Your task to perform on an android device: View the shopping cart on amazon. Search for "alienware aurora" on amazon, select the first entry, and add it to the cart. Image 0: 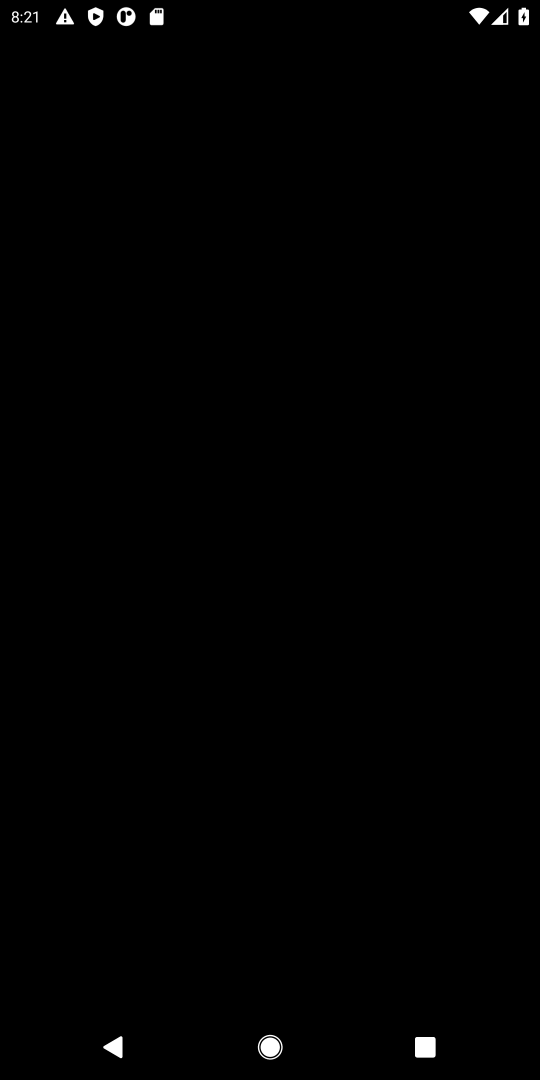
Step 0: press home button
Your task to perform on an android device: View the shopping cart on amazon. Search for "alienware aurora" on amazon, select the first entry, and add it to the cart. Image 1: 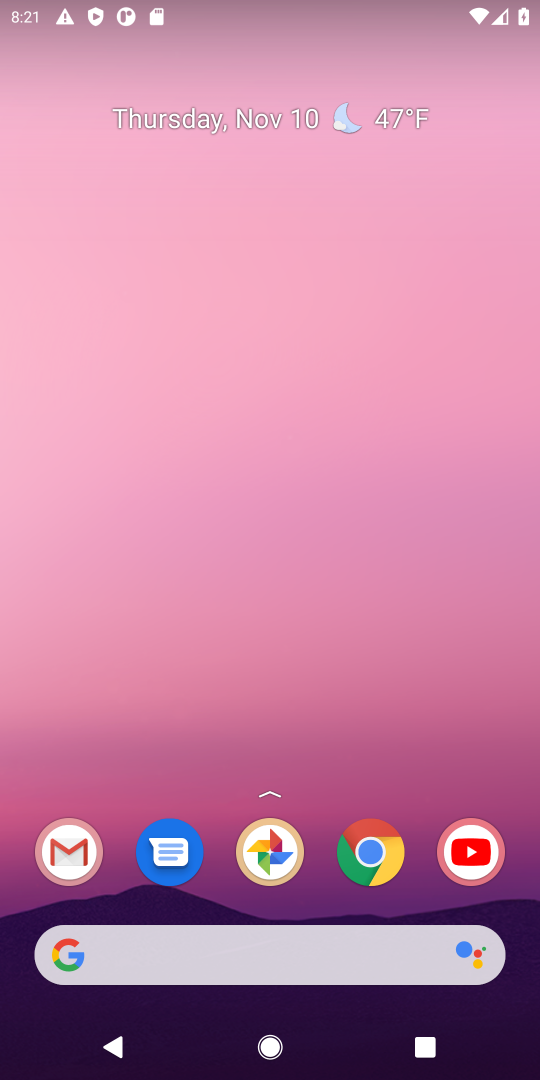
Step 1: click (367, 853)
Your task to perform on an android device: View the shopping cart on amazon. Search for "alienware aurora" on amazon, select the first entry, and add it to the cart. Image 2: 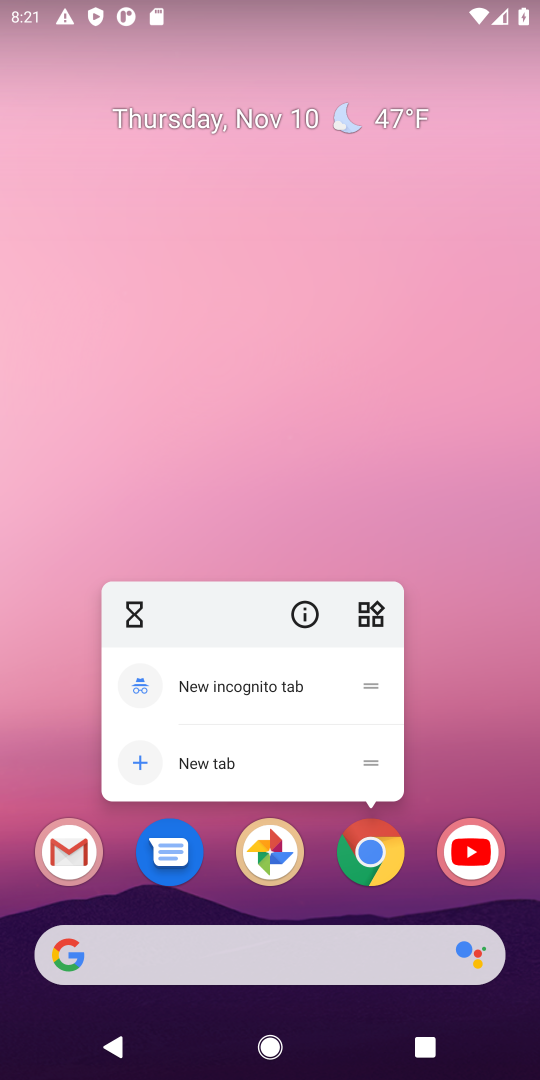
Step 2: click (368, 851)
Your task to perform on an android device: View the shopping cart on amazon. Search for "alienware aurora" on amazon, select the first entry, and add it to the cart. Image 3: 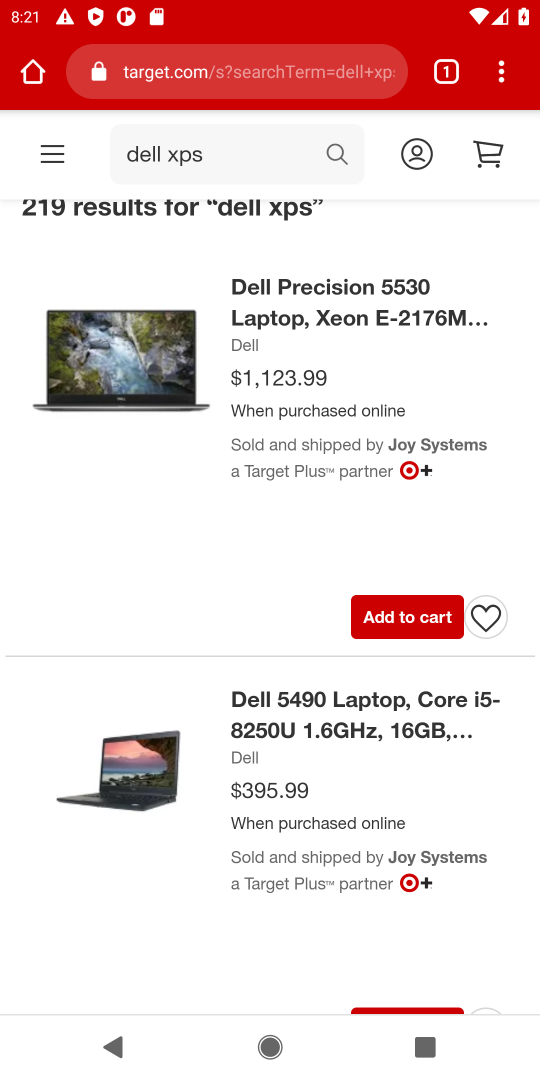
Step 3: click (322, 65)
Your task to perform on an android device: View the shopping cart on amazon. Search for "alienware aurora" on amazon, select the first entry, and add it to the cart. Image 4: 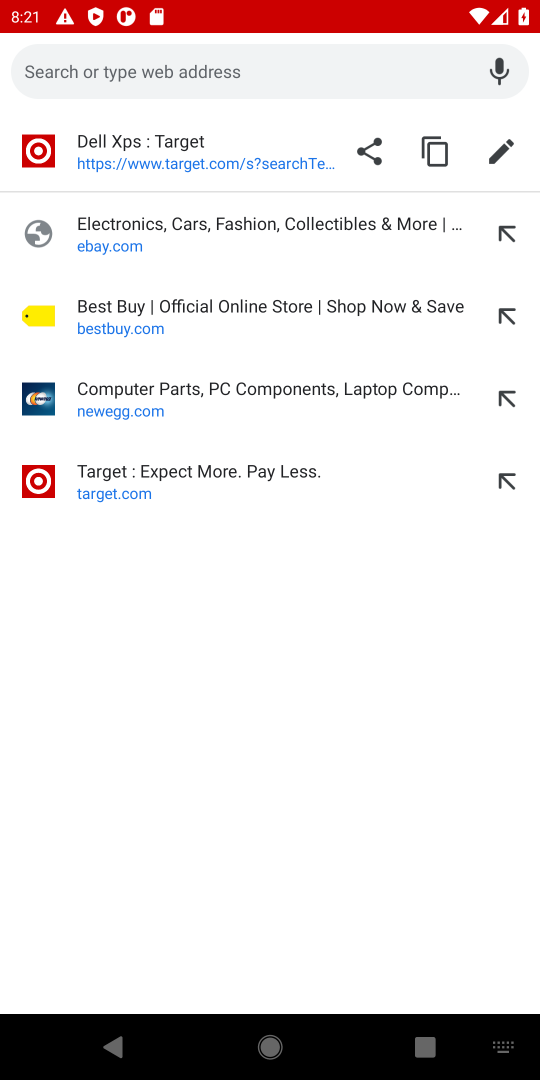
Step 4: type "amazon"
Your task to perform on an android device: View the shopping cart on amazon. Search for "alienware aurora" on amazon, select the first entry, and add it to the cart. Image 5: 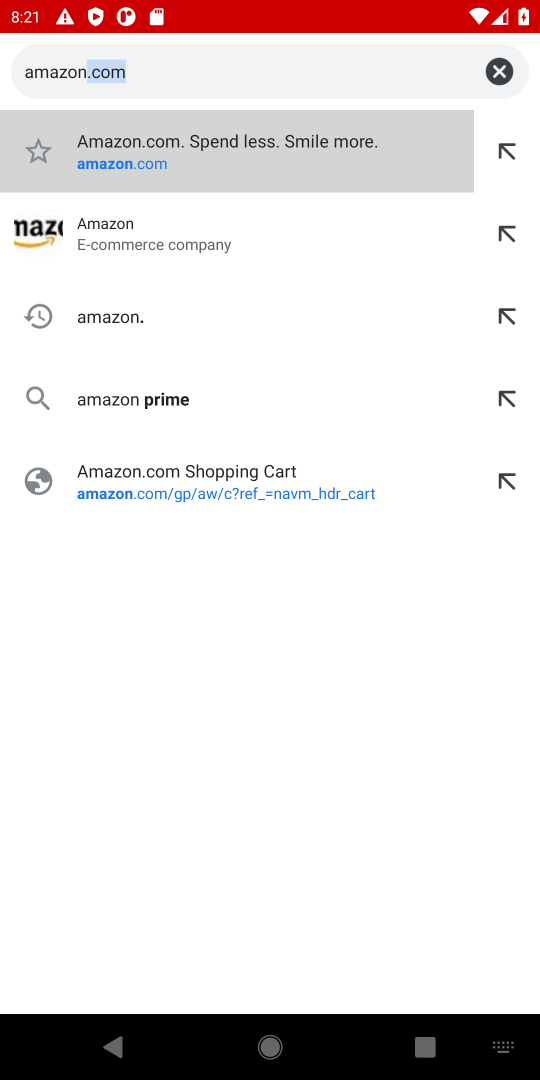
Step 5: press enter
Your task to perform on an android device: View the shopping cart on amazon. Search for "alienware aurora" on amazon, select the first entry, and add it to the cart. Image 6: 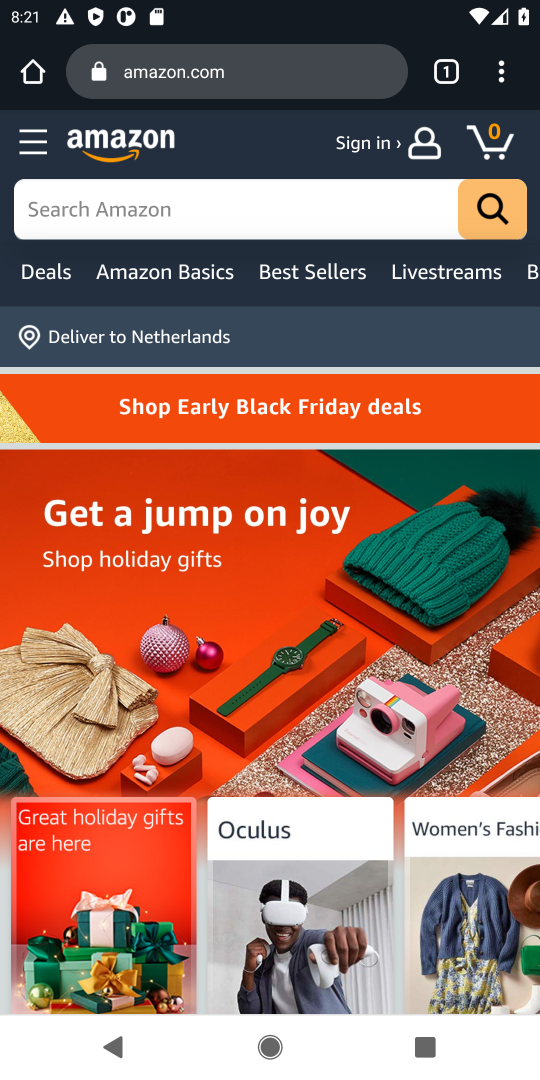
Step 6: click (131, 197)
Your task to perform on an android device: View the shopping cart on amazon. Search for "alienware aurora" on amazon, select the first entry, and add it to the cart. Image 7: 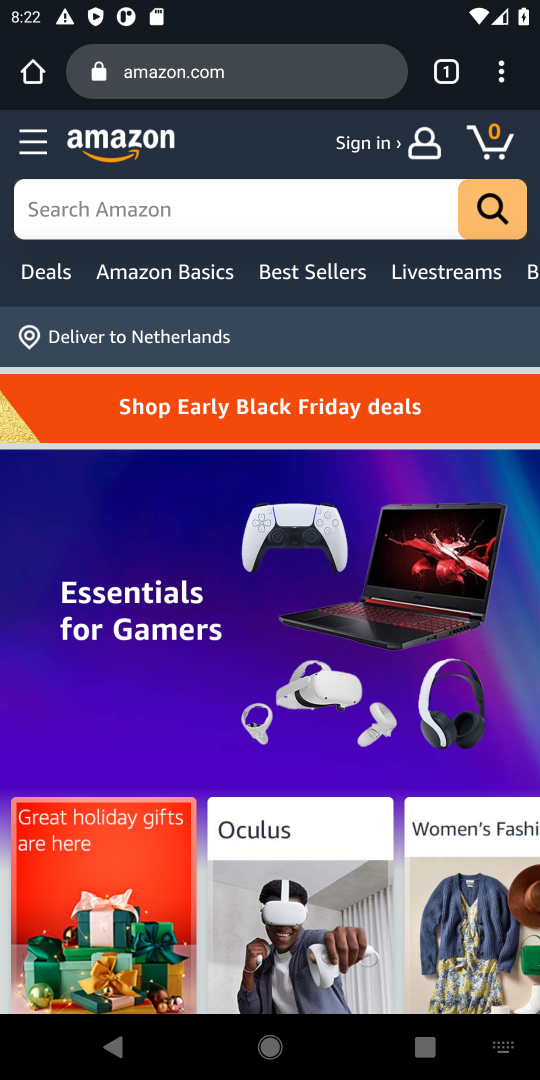
Step 7: press enter
Your task to perform on an android device: View the shopping cart on amazon. Search for "alienware aurora" on amazon, select the first entry, and add it to the cart. Image 8: 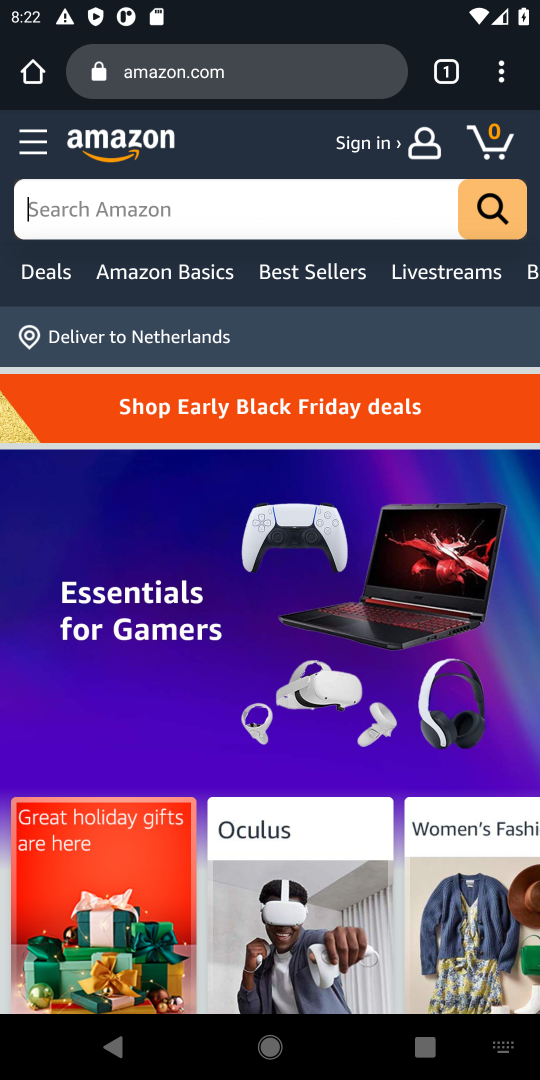
Step 8: type "alienware aurora"
Your task to perform on an android device: View the shopping cart on amazon. Search for "alienware aurora" on amazon, select the first entry, and add it to the cart. Image 9: 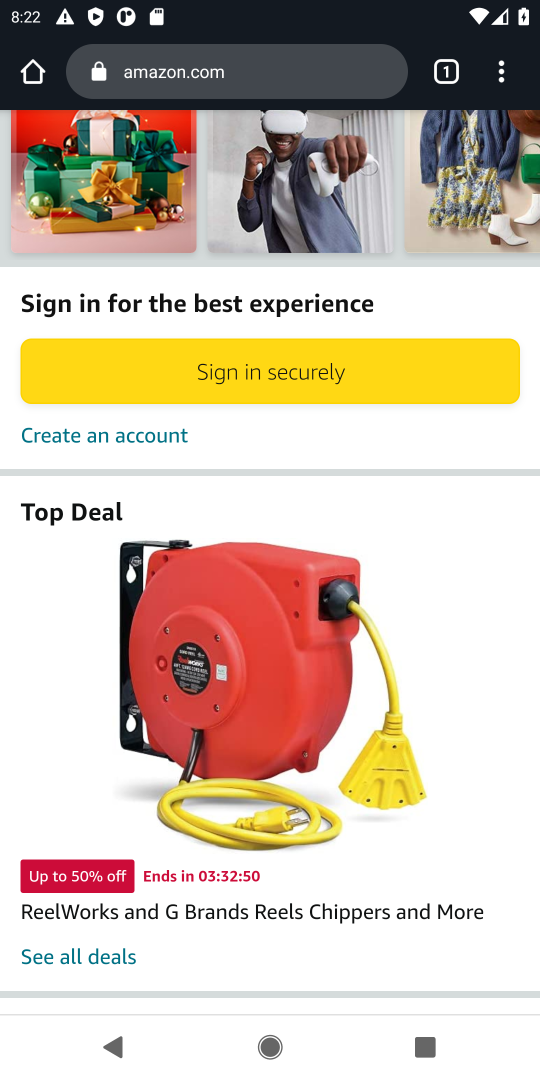
Step 9: drag from (436, 283) to (536, 923)
Your task to perform on an android device: View the shopping cart on amazon. Search for "alienware aurora" on amazon, select the first entry, and add it to the cart. Image 10: 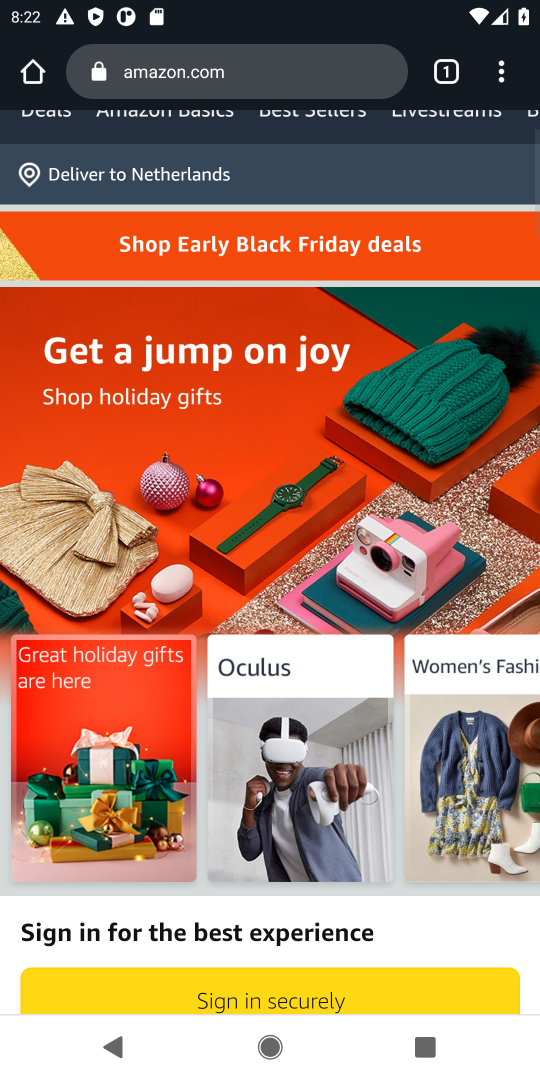
Step 10: drag from (244, 317) to (327, 846)
Your task to perform on an android device: View the shopping cart on amazon. Search for "alienware aurora" on amazon, select the first entry, and add it to the cart. Image 11: 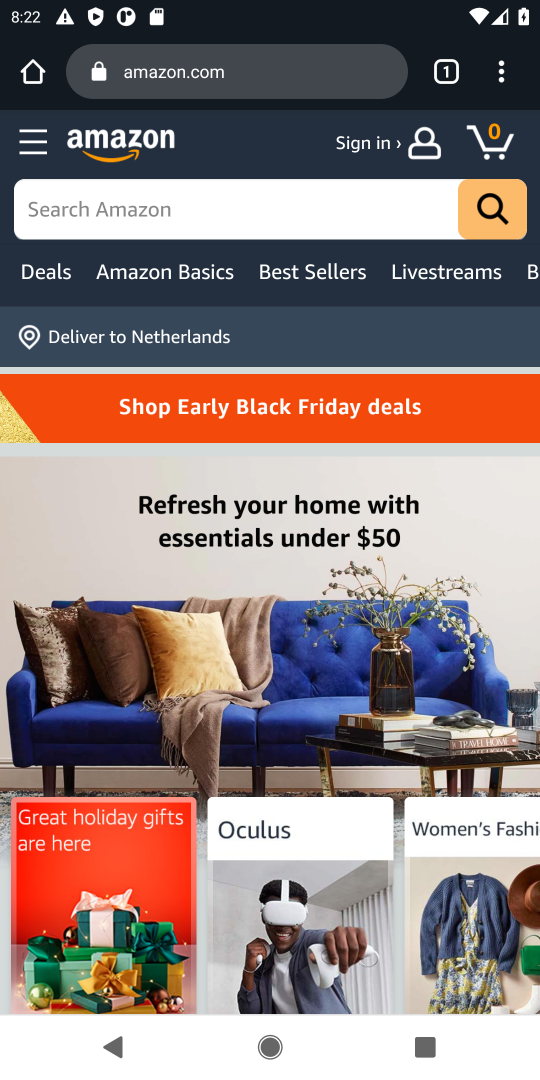
Step 11: click (176, 211)
Your task to perform on an android device: View the shopping cart on amazon. Search for "alienware aurora" on amazon, select the first entry, and add it to the cart. Image 12: 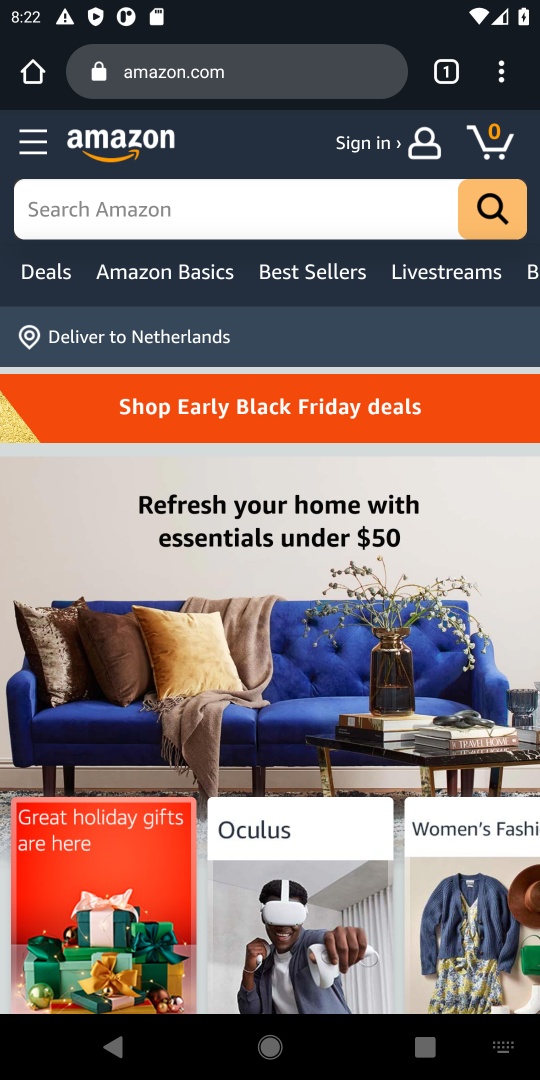
Step 12: click (133, 208)
Your task to perform on an android device: View the shopping cart on amazon. Search for "alienware aurora" on amazon, select the first entry, and add it to the cart. Image 13: 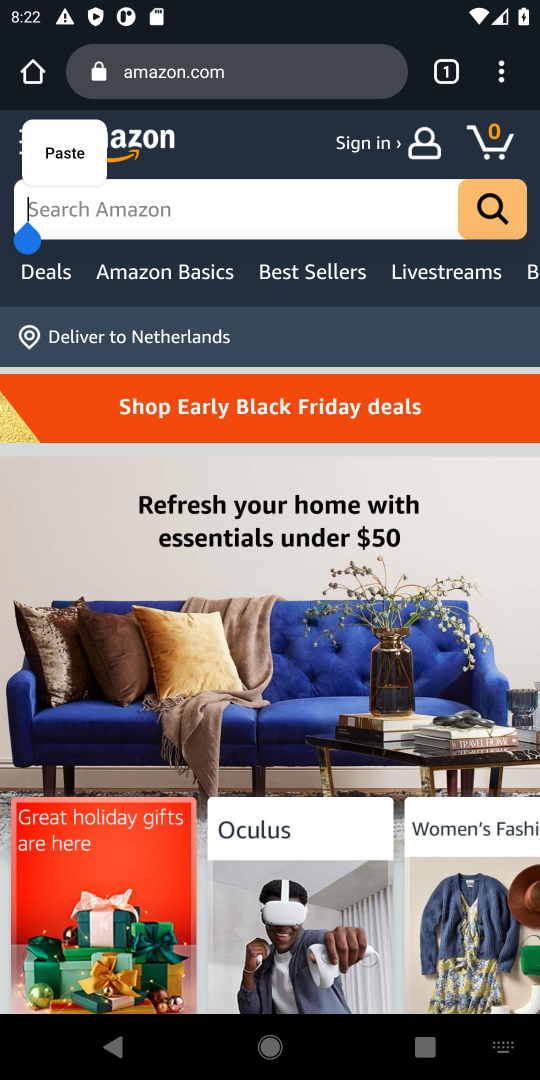
Step 13: type "alienware aurora"
Your task to perform on an android device: View the shopping cart on amazon. Search for "alienware aurora" on amazon, select the first entry, and add it to the cart. Image 14: 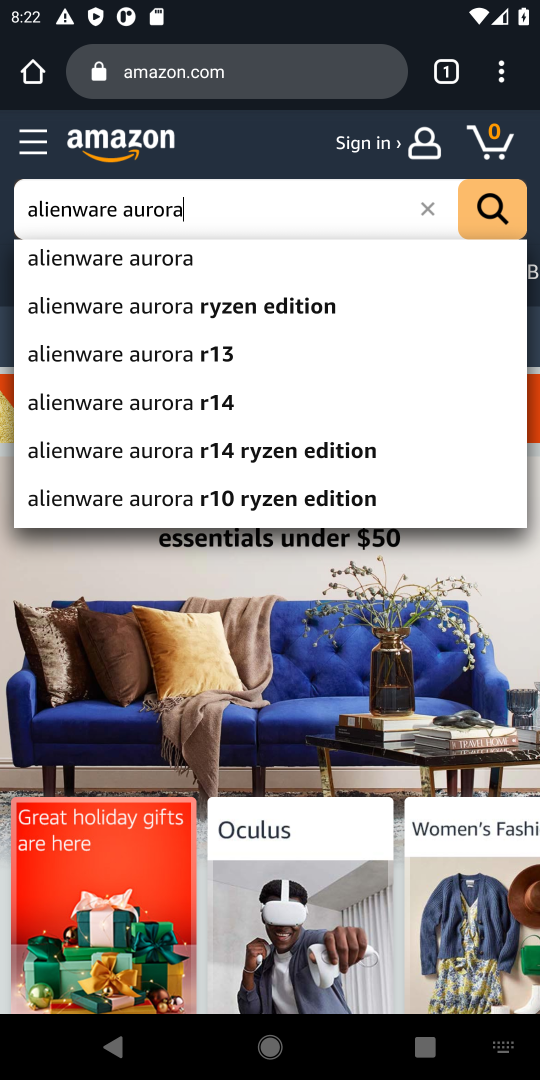
Step 14: press enter
Your task to perform on an android device: View the shopping cart on amazon. Search for "alienware aurora" on amazon, select the first entry, and add it to the cart. Image 15: 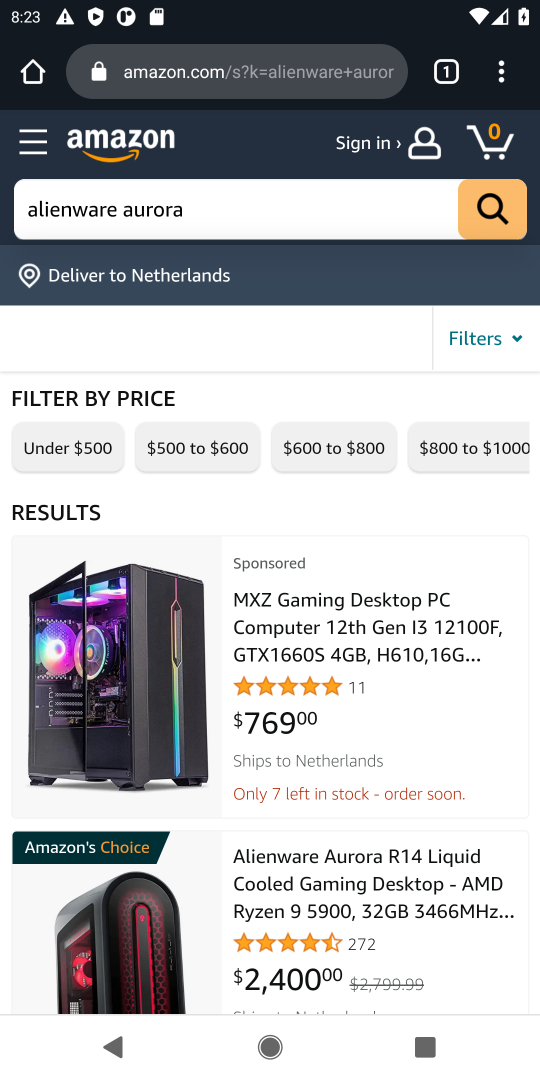
Step 15: task complete